Your task to perform on an android device: change the clock display to show seconds Image 0: 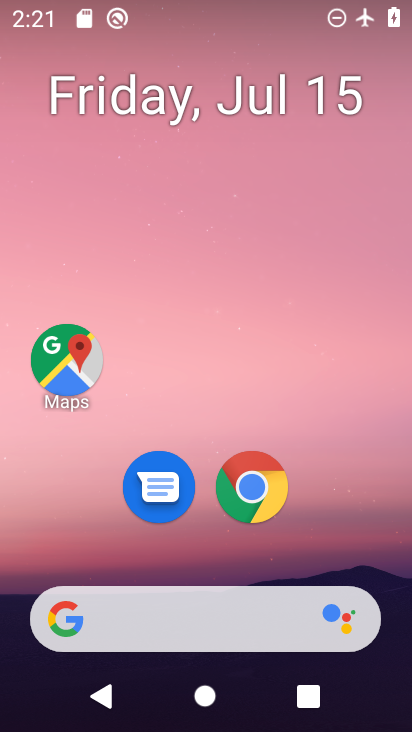
Step 0: drag from (124, 589) to (168, 397)
Your task to perform on an android device: change the clock display to show seconds Image 1: 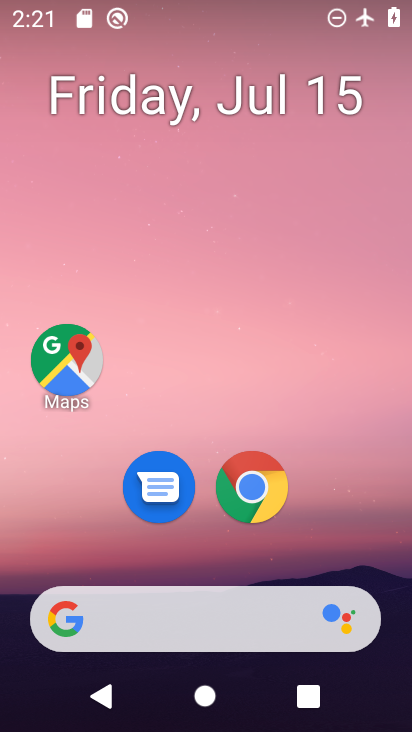
Step 1: drag from (184, 575) to (274, 132)
Your task to perform on an android device: change the clock display to show seconds Image 2: 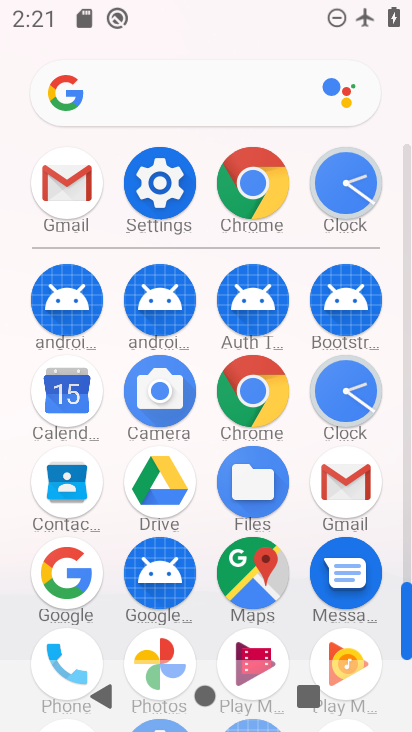
Step 2: click (347, 402)
Your task to perform on an android device: change the clock display to show seconds Image 3: 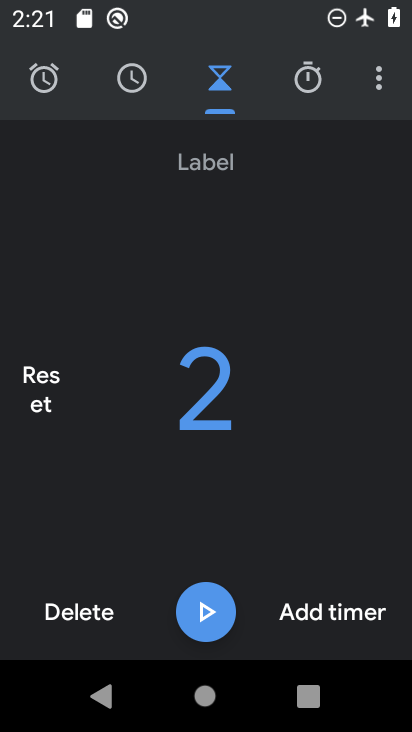
Step 3: click (381, 69)
Your task to perform on an android device: change the clock display to show seconds Image 4: 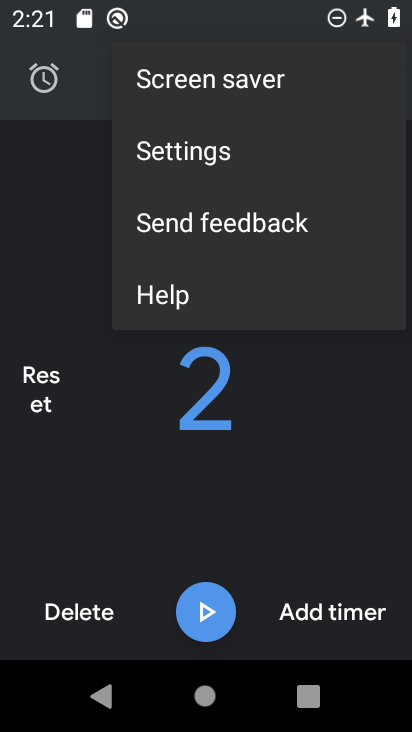
Step 4: click (224, 161)
Your task to perform on an android device: change the clock display to show seconds Image 5: 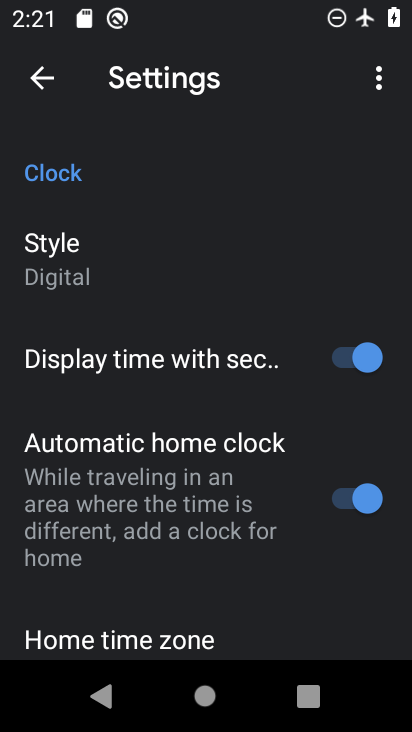
Step 5: task complete